Your task to perform on an android device: Go to Yahoo.com Image 0: 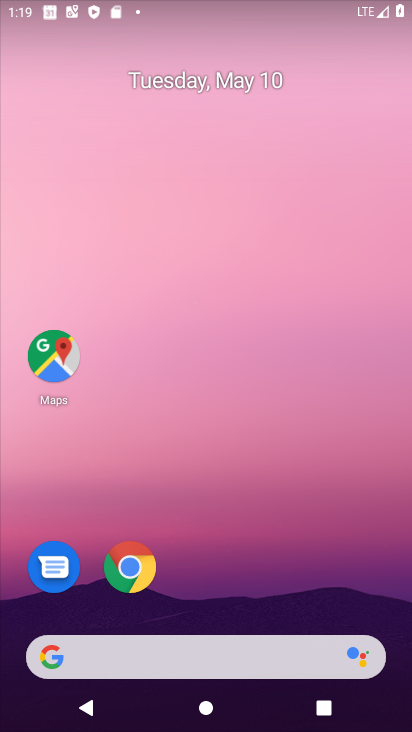
Step 0: drag from (345, 582) to (312, 130)
Your task to perform on an android device: Go to Yahoo.com Image 1: 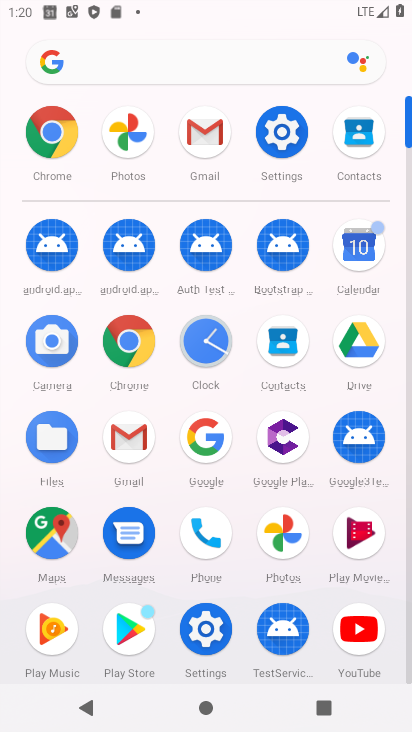
Step 1: click (117, 342)
Your task to perform on an android device: Go to Yahoo.com Image 2: 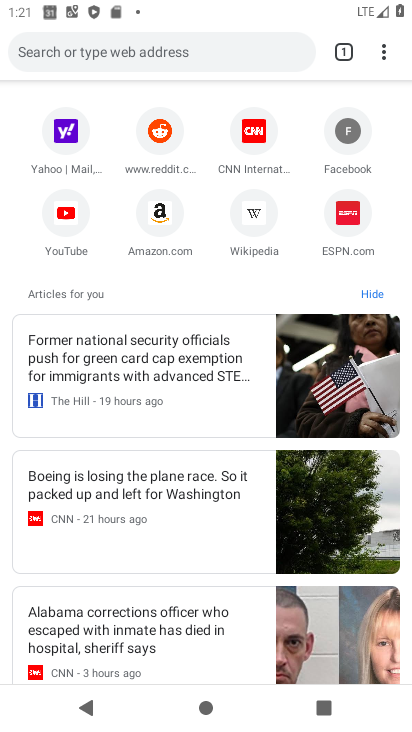
Step 2: click (60, 121)
Your task to perform on an android device: Go to Yahoo.com Image 3: 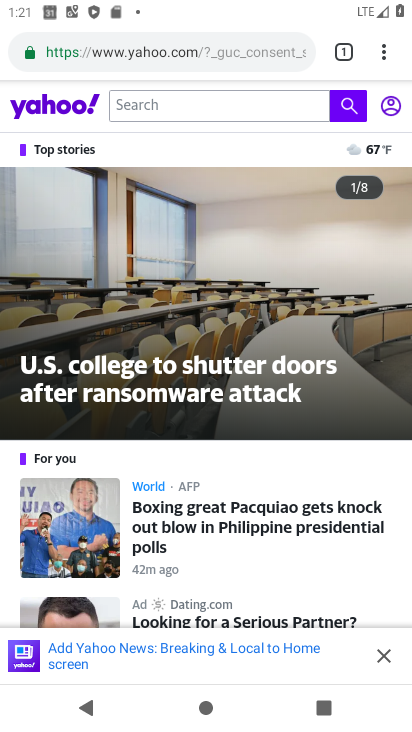
Step 3: task complete